Your task to perform on an android device: When is my next appointment? Image 0: 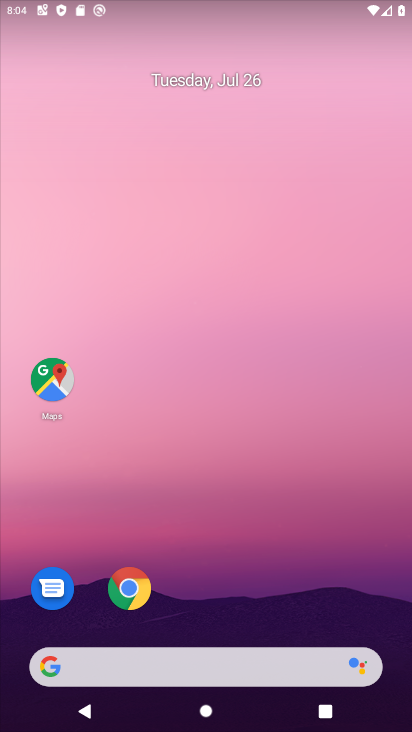
Step 0: drag from (287, 547) to (343, 215)
Your task to perform on an android device: When is my next appointment? Image 1: 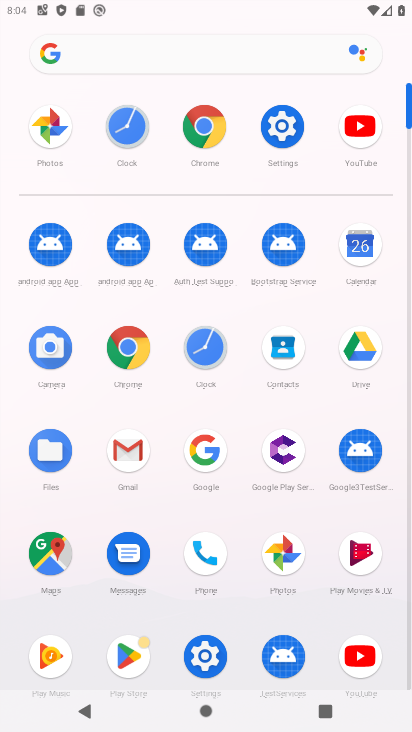
Step 1: click (367, 254)
Your task to perform on an android device: When is my next appointment? Image 2: 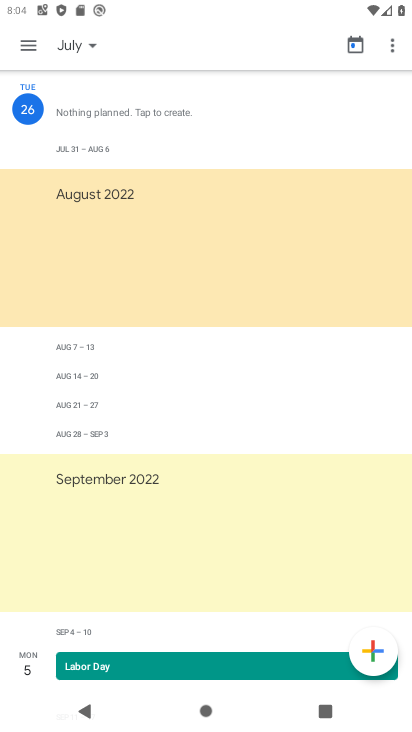
Step 2: task complete